Your task to perform on an android device: See recent photos Image 0: 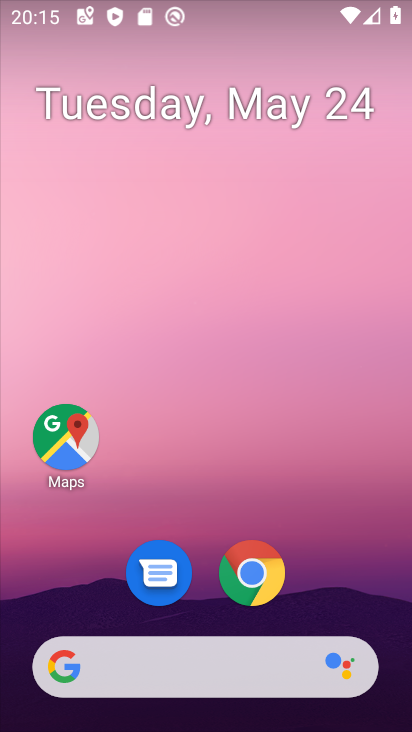
Step 0: drag from (330, 608) to (369, 30)
Your task to perform on an android device: See recent photos Image 1: 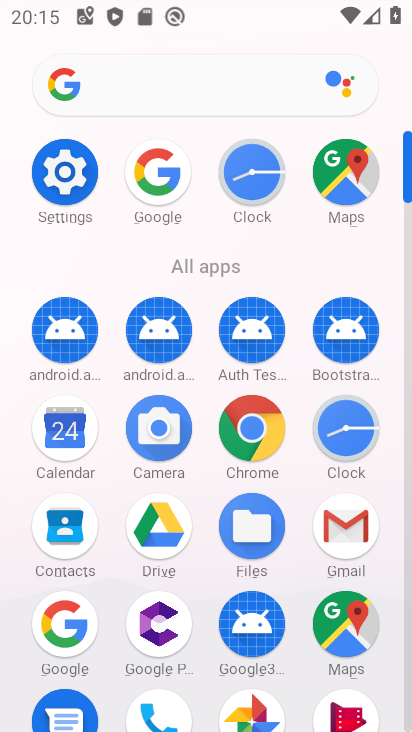
Step 1: click (245, 709)
Your task to perform on an android device: See recent photos Image 2: 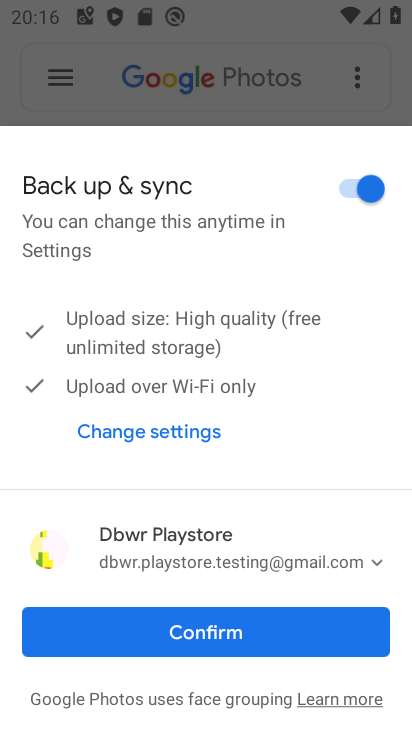
Step 2: click (239, 637)
Your task to perform on an android device: See recent photos Image 3: 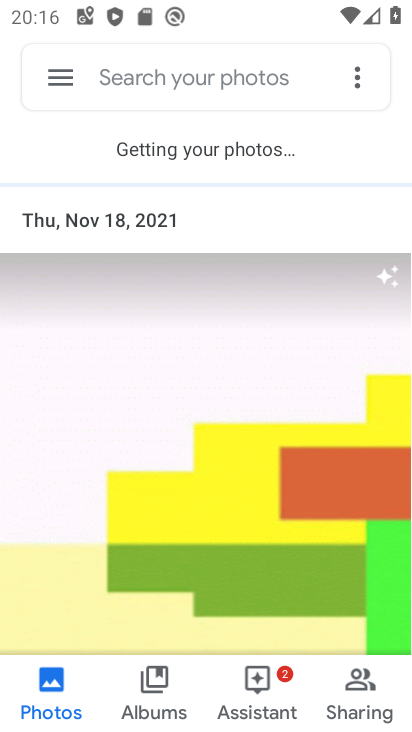
Step 3: task complete